Your task to perform on an android device: add a contact Image 0: 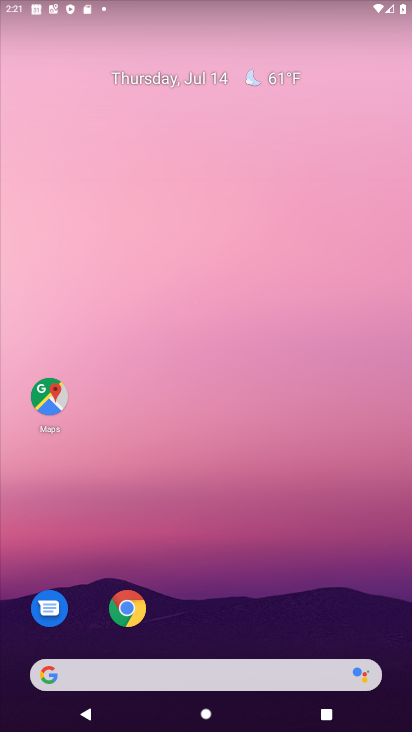
Step 0: drag from (203, 683) to (243, 150)
Your task to perform on an android device: add a contact Image 1: 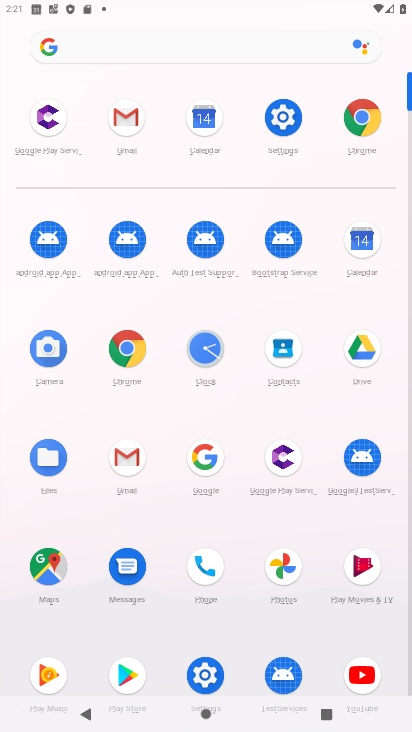
Step 1: click (284, 349)
Your task to perform on an android device: add a contact Image 2: 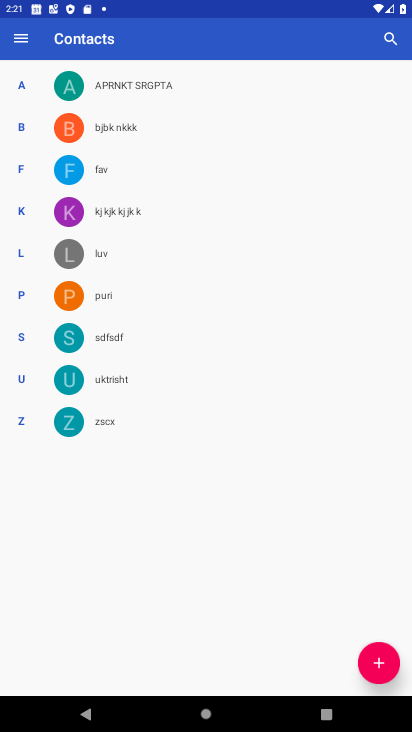
Step 2: click (375, 658)
Your task to perform on an android device: add a contact Image 3: 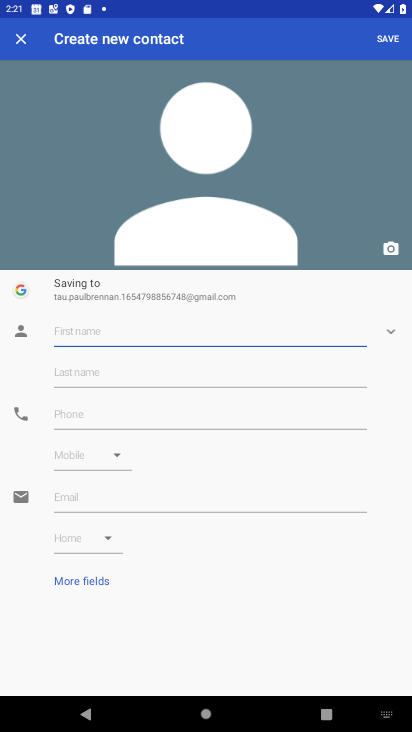
Step 3: click (167, 329)
Your task to perform on an android device: add a contact Image 4: 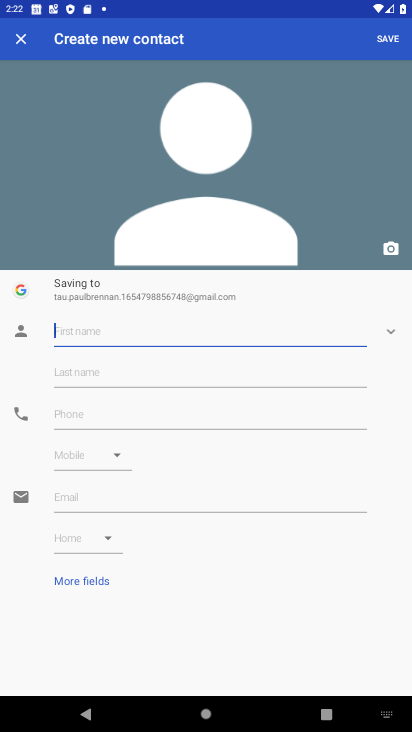
Step 4: type "Arpita "
Your task to perform on an android device: add a contact Image 5: 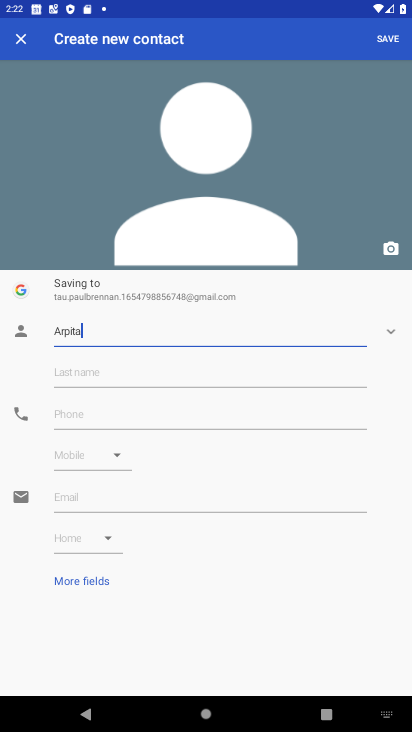
Step 5: click (124, 371)
Your task to perform on an android device: add a contact Image 6: 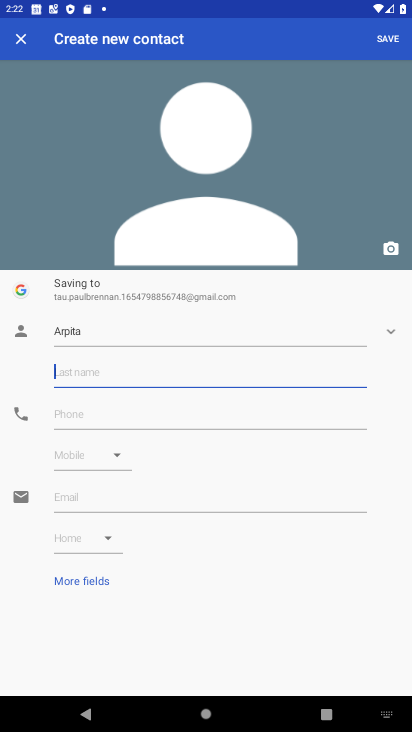
Step 6: type "Bansal"
Your task to perform on an android device: add a contact Image 7: 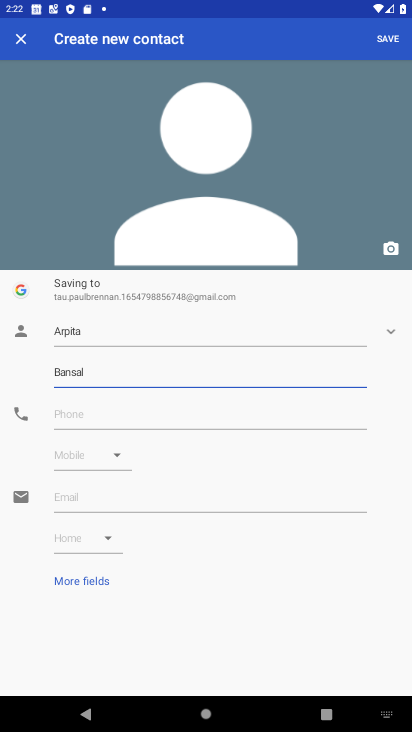
Step 7: click (192, 418)
Your task to perform on an android device: add a contact Image 8: 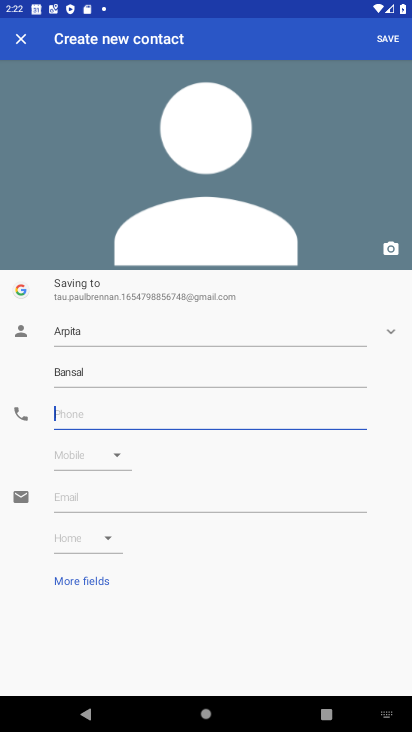
Step 8: type "09988776655"
Your task to perform on an android device: add a contact Image 9: 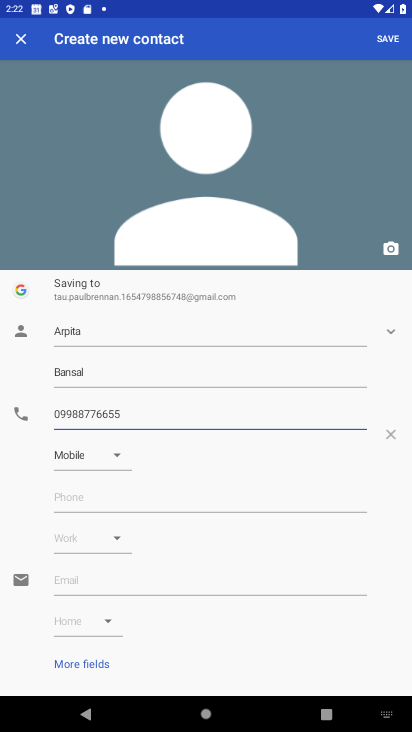
Step 9: click (391, 33)
Your task to perform on an android device: add a contact Image 10: 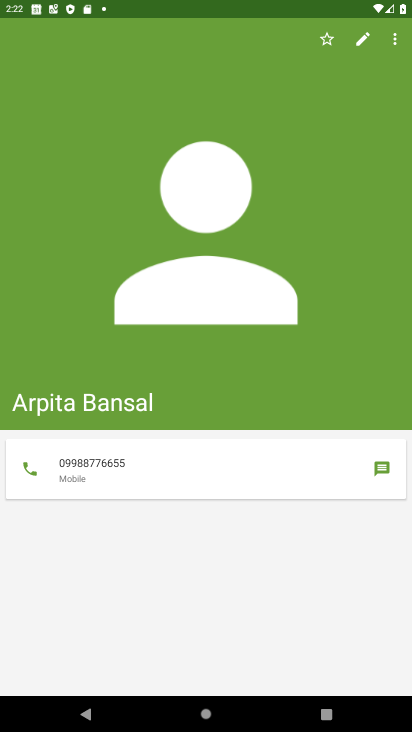
Step 10: task complete